Your task to perform on an android device: turn on airplane mode Image 0: 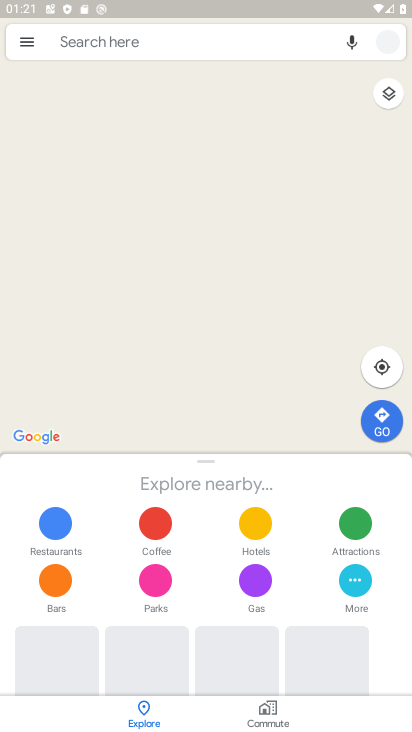
Step 0: press home button
Your task to perform on an android device: turn on airplane mode Image 1: 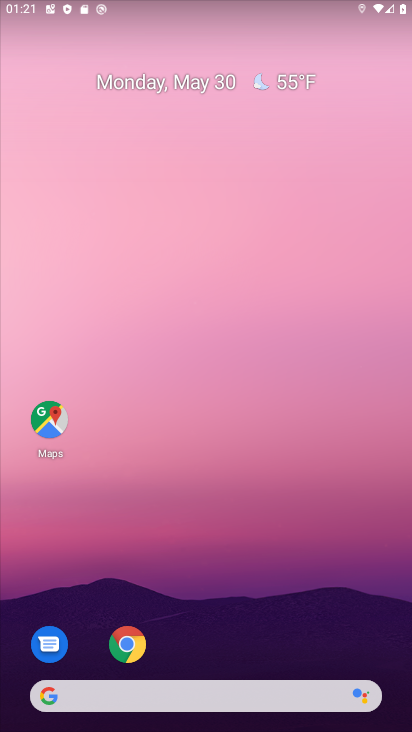
Step 1: drag from (309, 570) to (307, 186)
Your task to perform on an android device: turn on airplane mode Image 2: 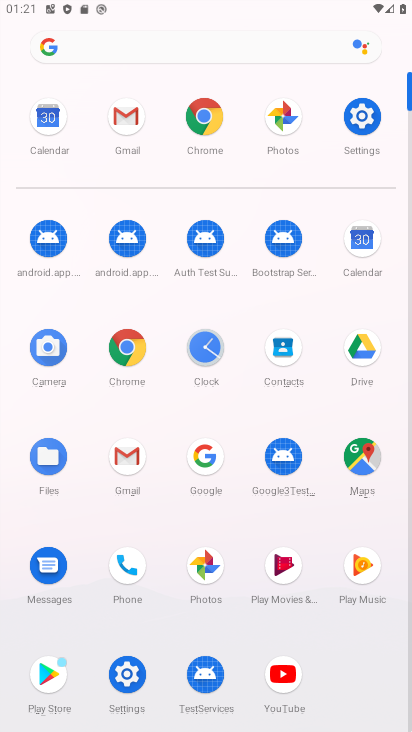
Step 2: click (349, 116)
Your task to perform on an android device: turn on airplane mode Image 3: 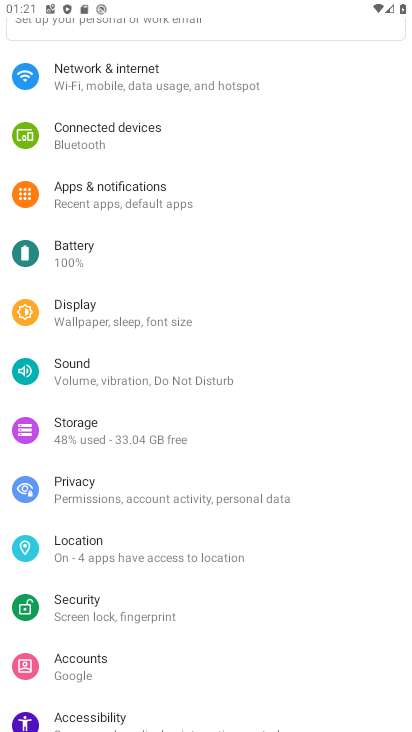
Step 3: drag from (303, 148) to (261, 604)
Your task to perform on an android device: turn on airplane mode Image 4: 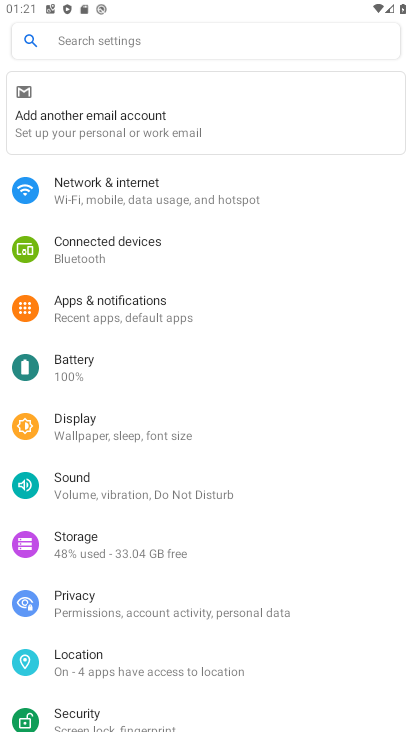
Step 4: click (144, 204)
Your task to perform on an android device: turn on airplane mode Image 5: 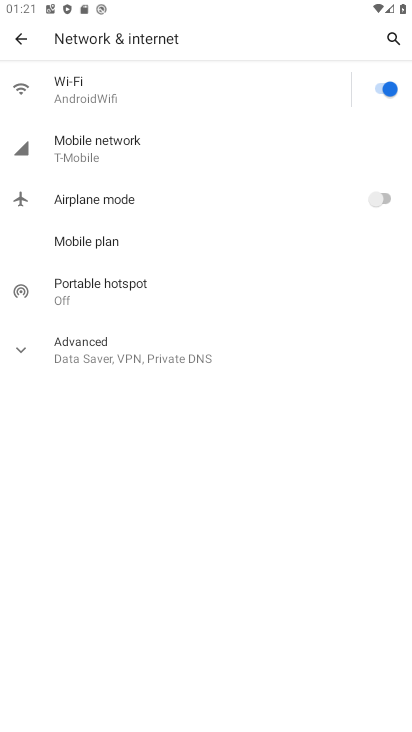
Step 5: click (385, 200)
Your task to perform on an android device: turn on airplane mode Image 6: 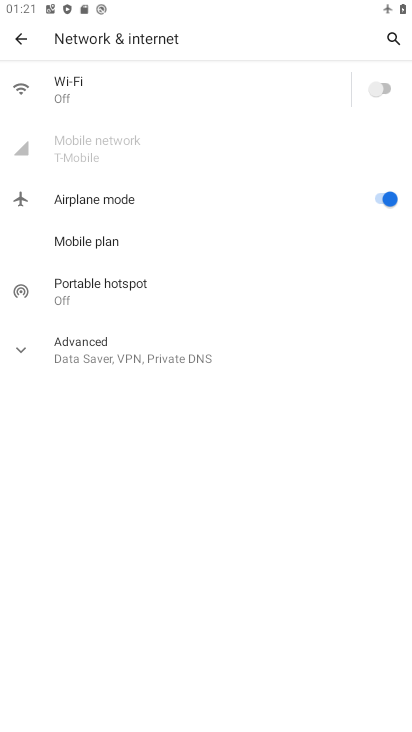
Step 6: task complete